Your task to perform on an android device: Open notification settings Image 0: 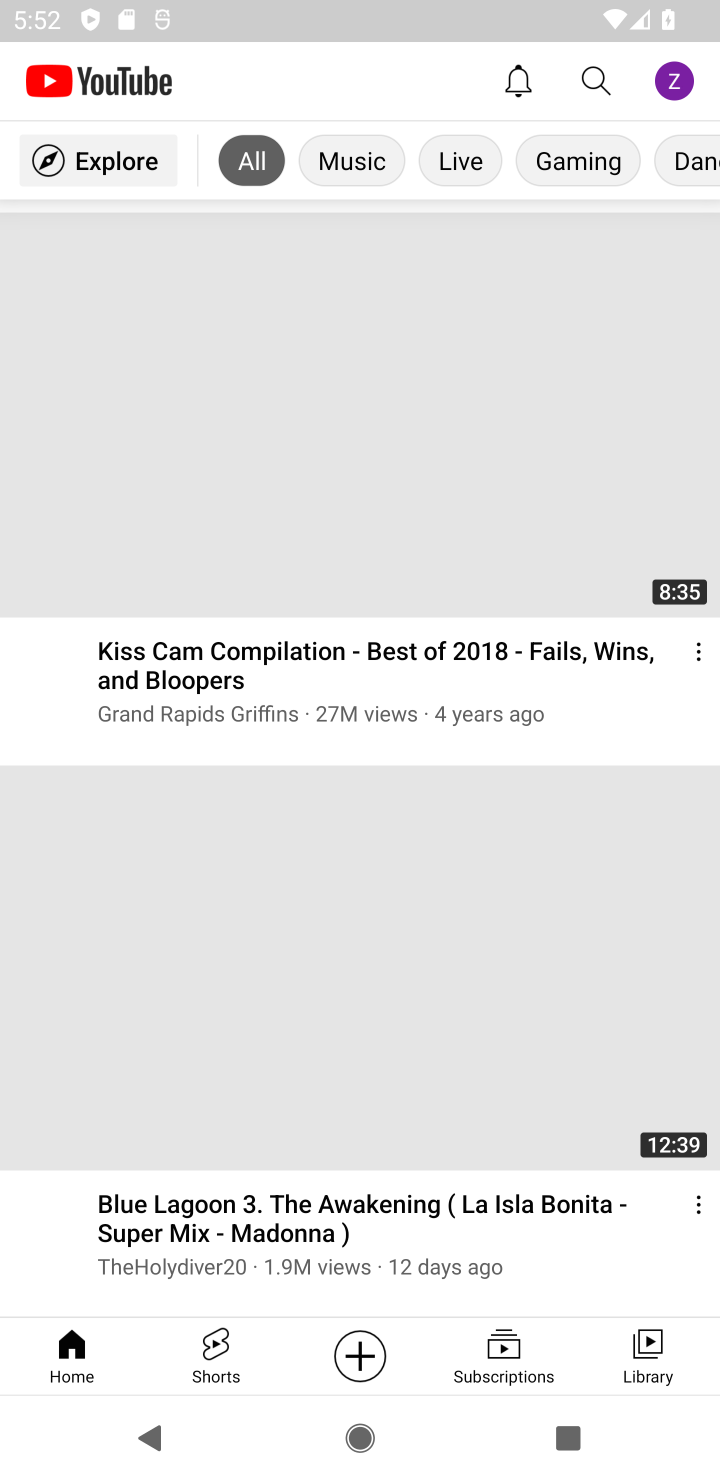
Step 0: press home button
Your task to perform on an android device: Open notification settings Image 1: 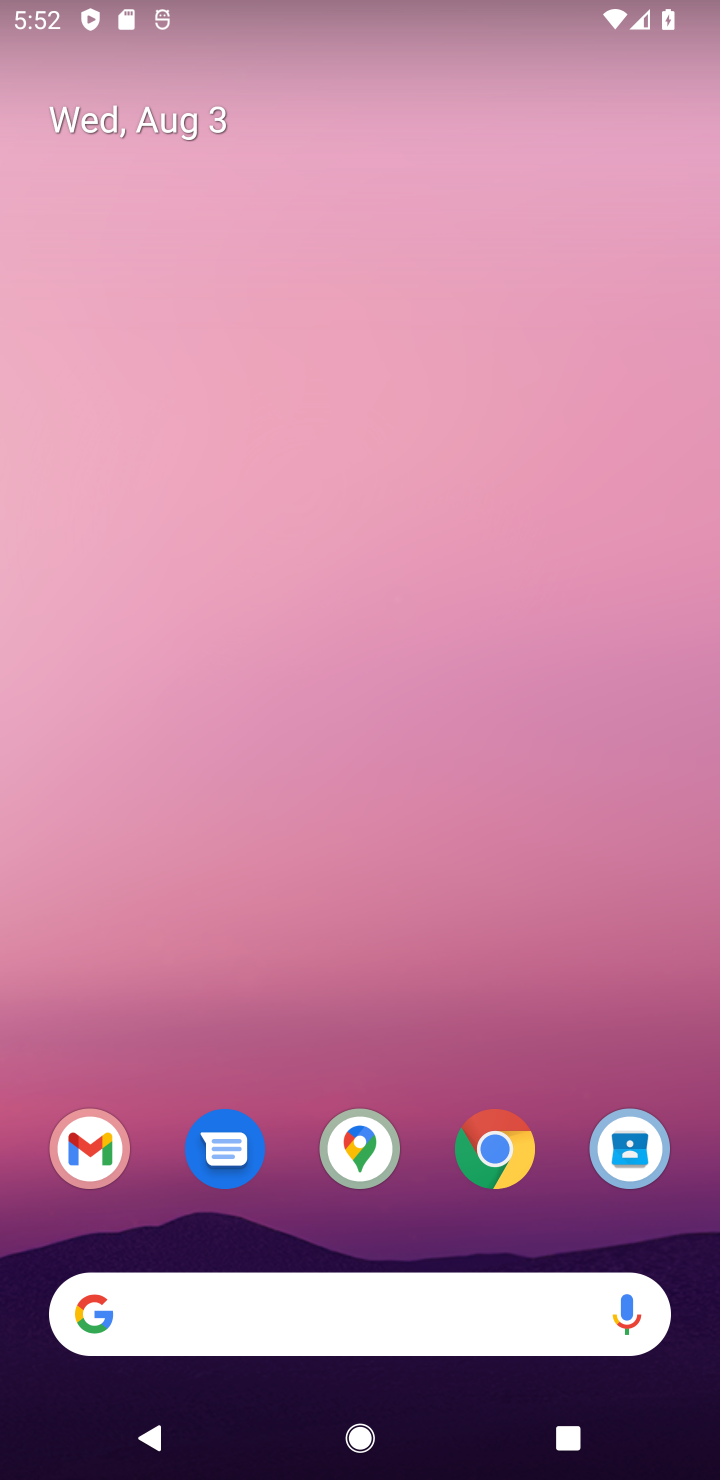
Step 1: drag from (357, 1082) to (292, 210)
Your task to perform on an android device: Open notification settings Image 2: 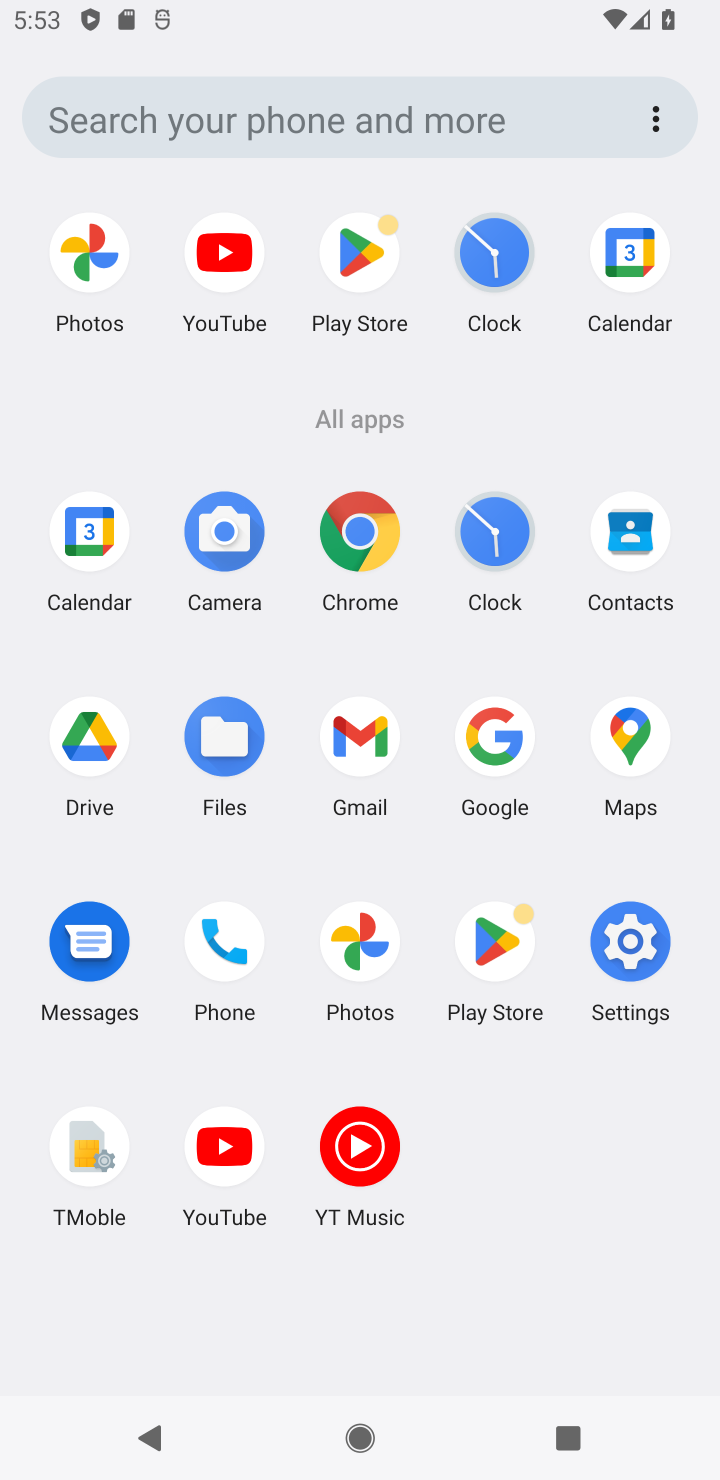
Step 2: click (587, 947)
Your task to perform on an android device: Open notification settings Image 3: 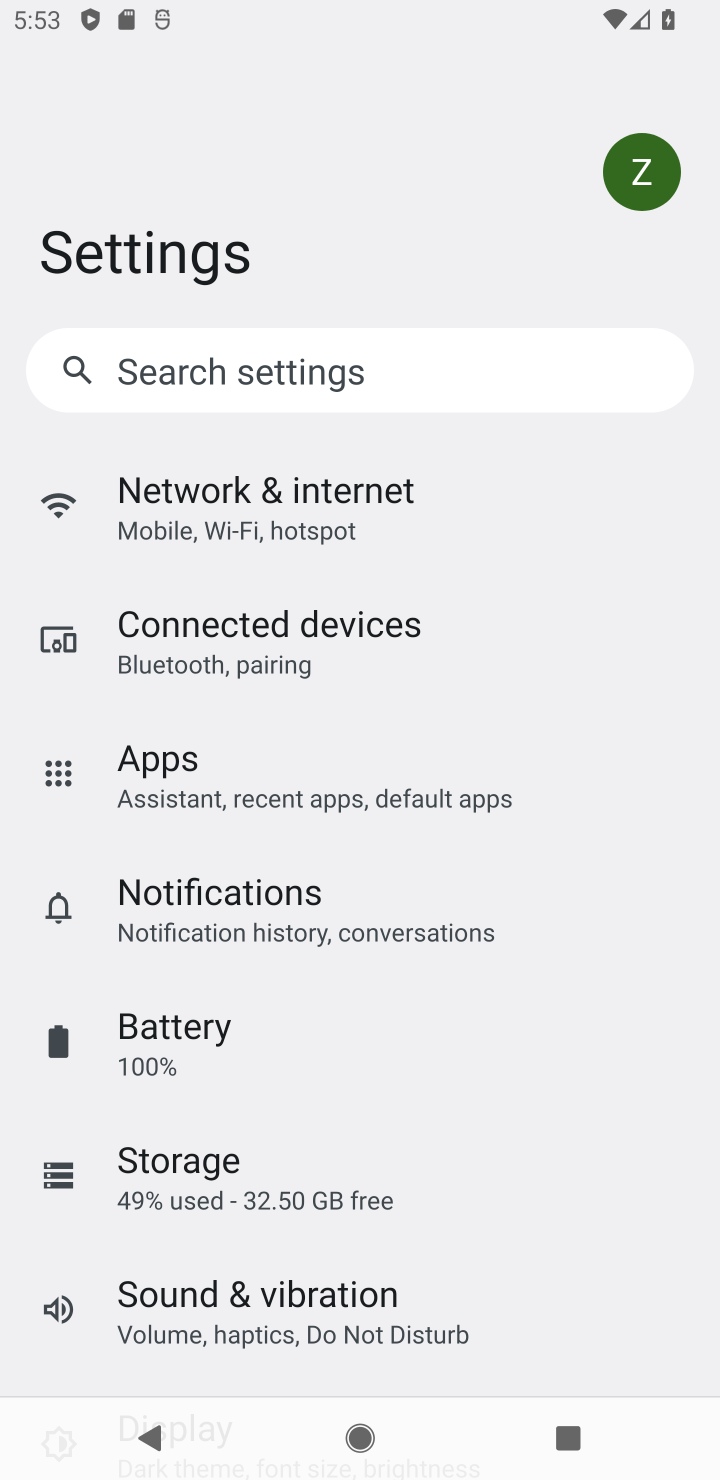
Step 3: click (287, 914)
Your task to perform on an android device: Open notification settings Image 4: 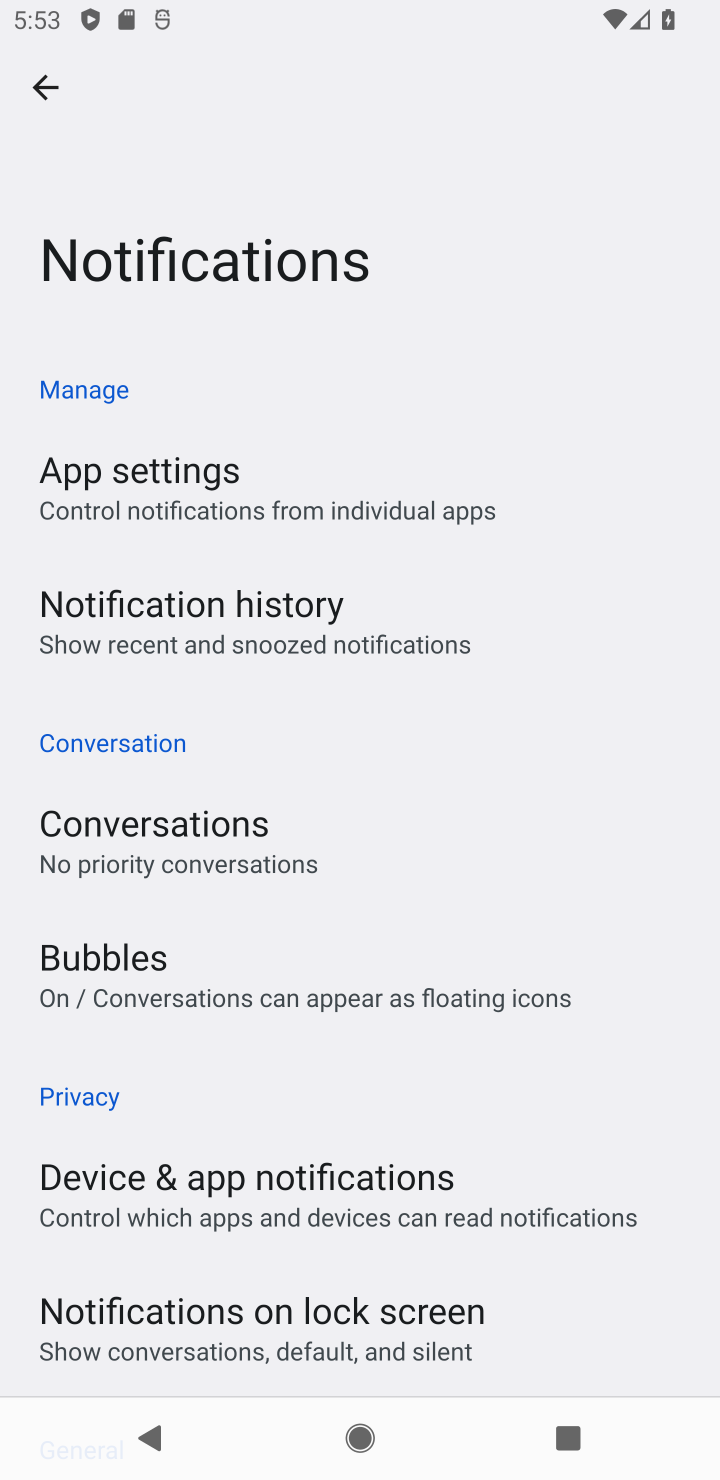
Step 4: task complete